Your task to perform on an android device: Go to network settings Image 0: 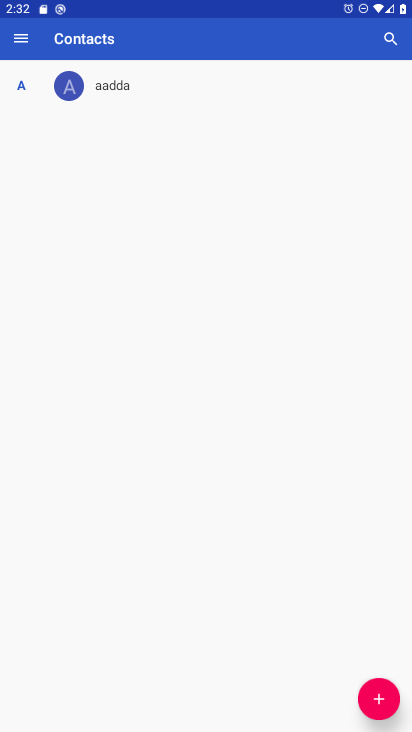
Step 0: press home button
Your task to perform on an android device: Go to network settings Image 1: 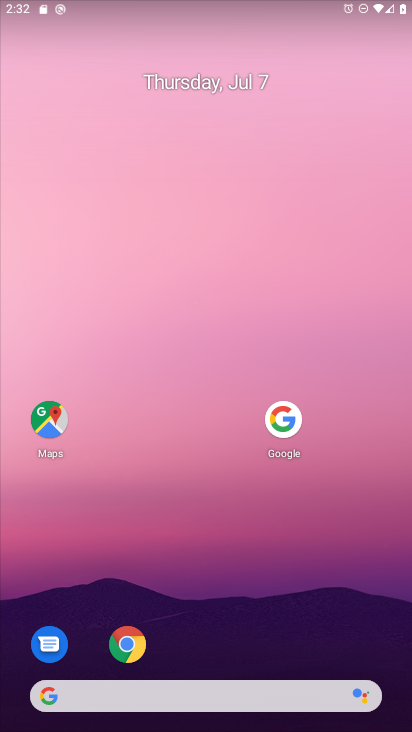
Step 1: drag from (235, 695) to (348, 187)
Your task to perform on an android device: Go to network settings Image 2: 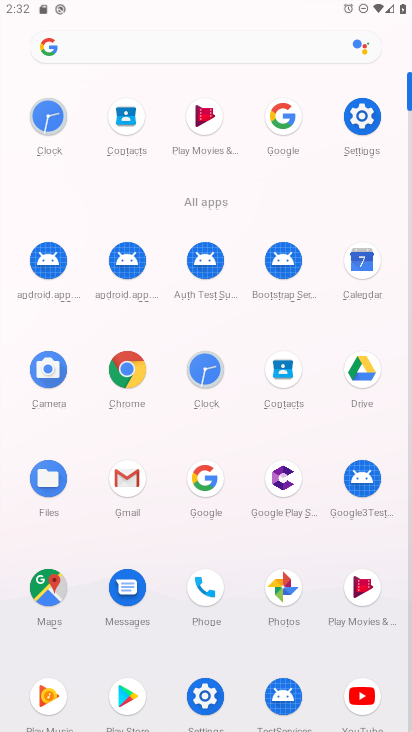
Step 2: click (361, 117)
Your task to perform on an android device: Go to network settings Image 3: 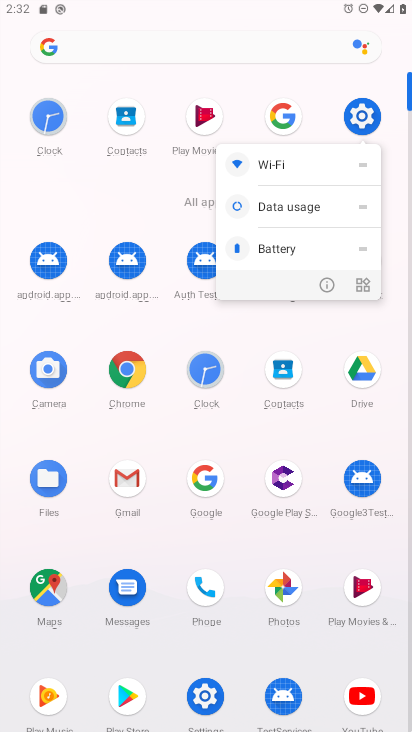
Step 3: click (369, 108)
Your task to perform on an android device: Go to network settings Image 4: 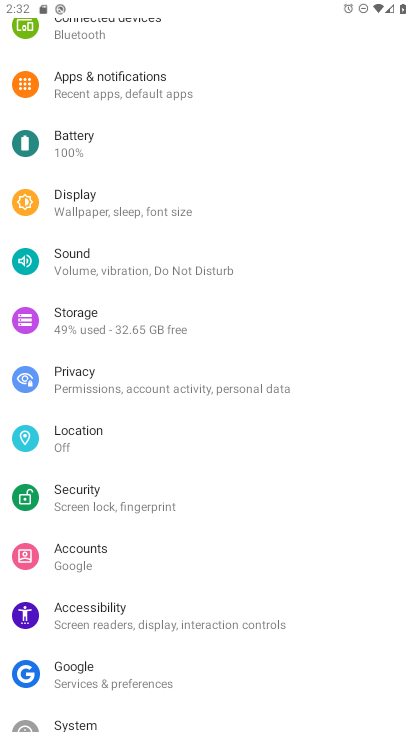
Step 4: drag from (230, 105) to (287, 496)
Your task to perform on an android device: Go to network settings Image 5: 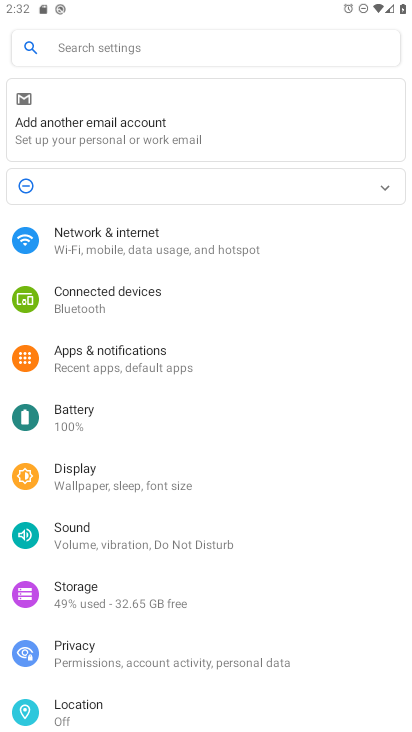
Step 5: click (125, 238)
Your task to perform on an android device: Go to network settings Image 6: 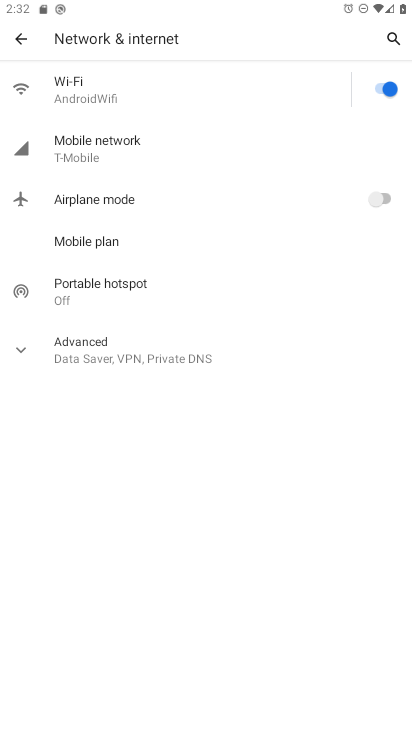
Step 6: click (128, 140)
Your task to perform on an android device: Go to network settings Image 7: 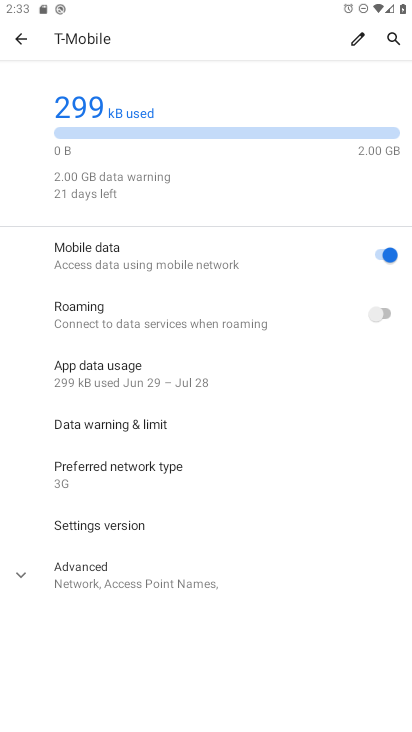
Step 7: task complete